Your task to perform on an android device: check data usage Image 0: 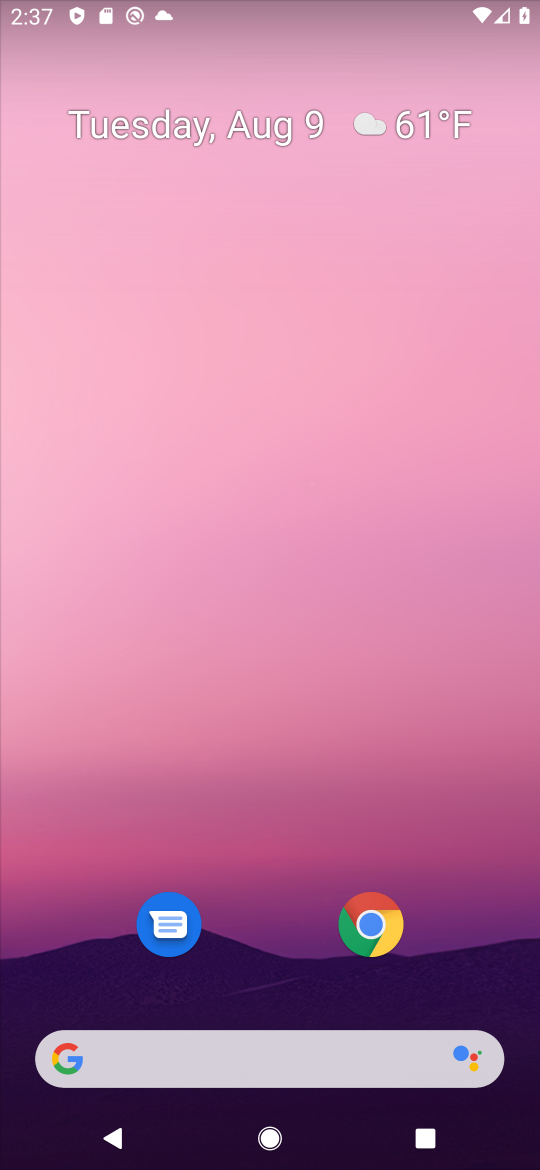
Step 0: drag from (245, 841) to (304, 28)
Your task to perform on an android device: check data usage Image 1: 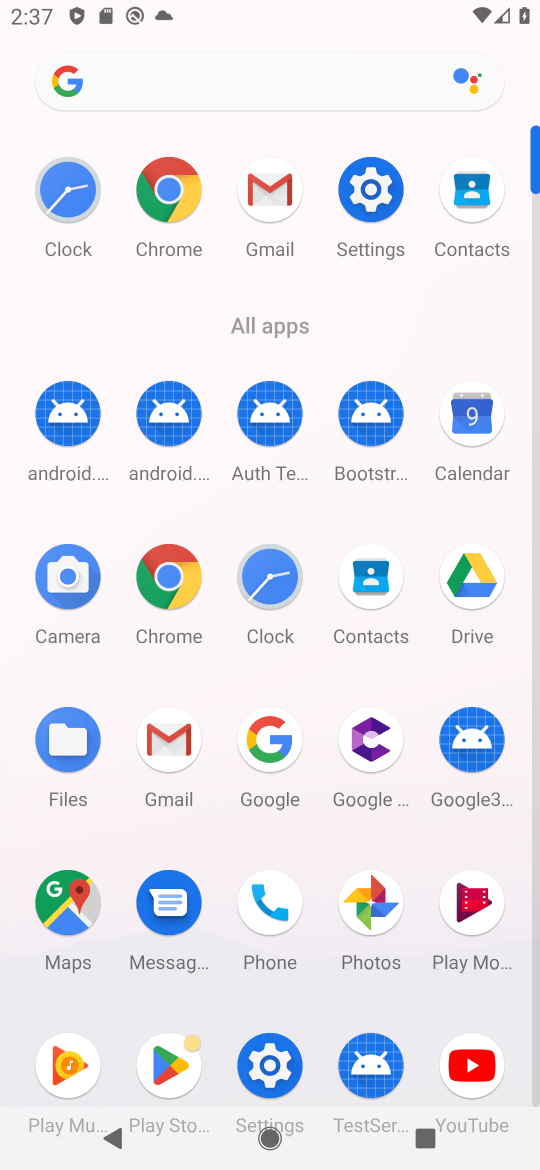
Step 1: click (371, 189)
Your task to perform on an android device: check data usage Image 2: 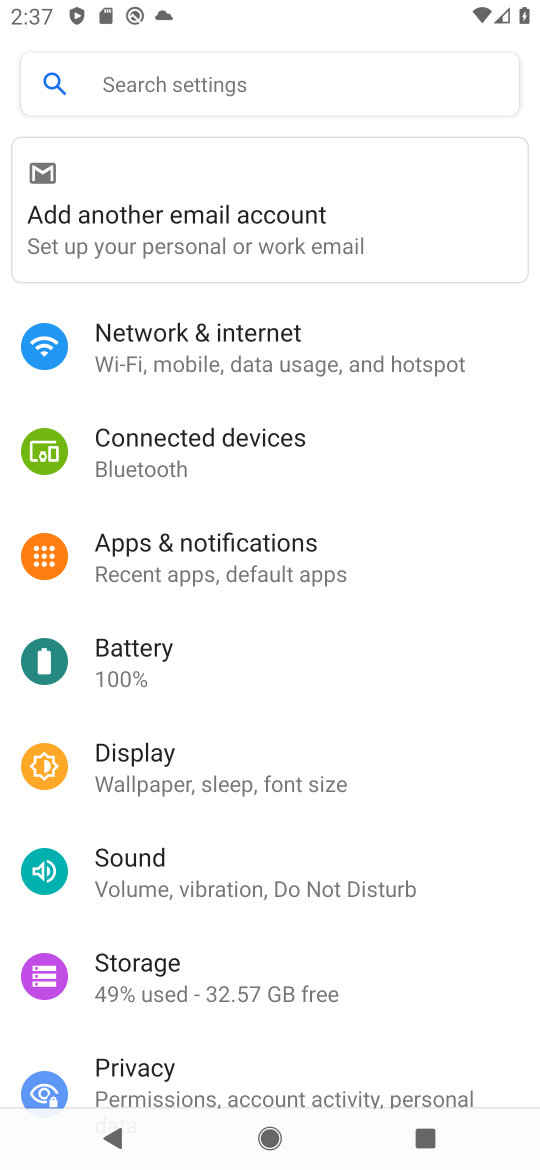
Step 2: click (329, 357)
Your task to perform on an android device: check data usage Image 3: 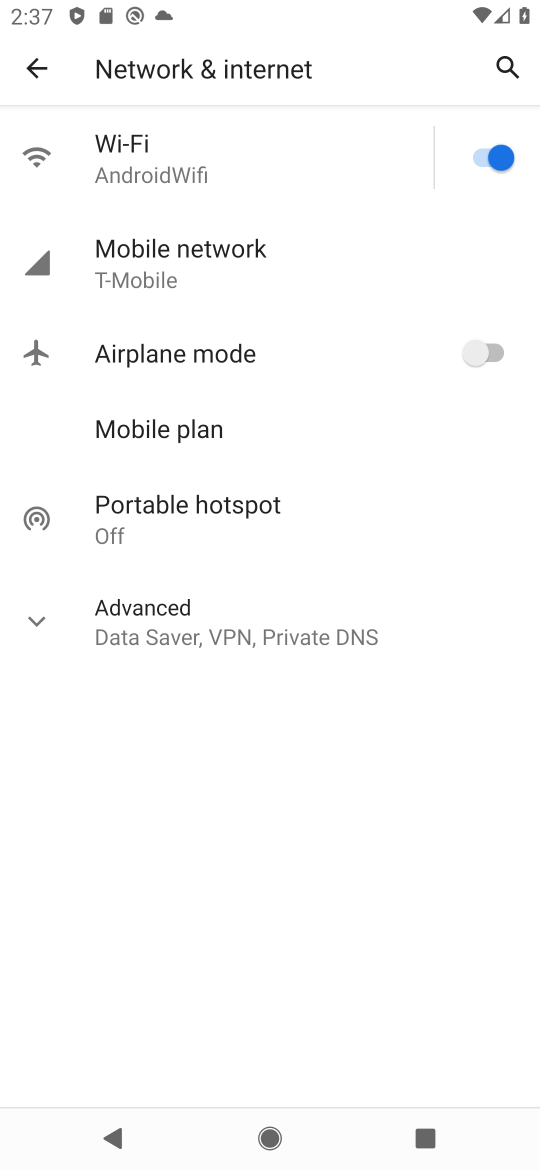
Step 3: click (215, 261)
Your task to perform on an android device: check data usage Image 4: 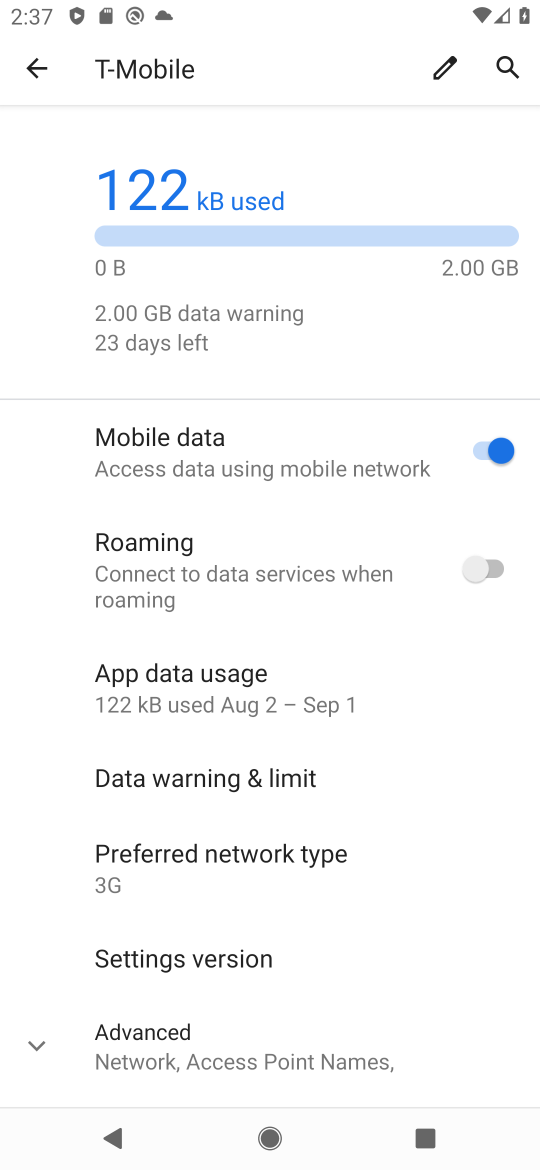
Step 4: task complete